Your task to perform on an android device: Open Google Image 0: 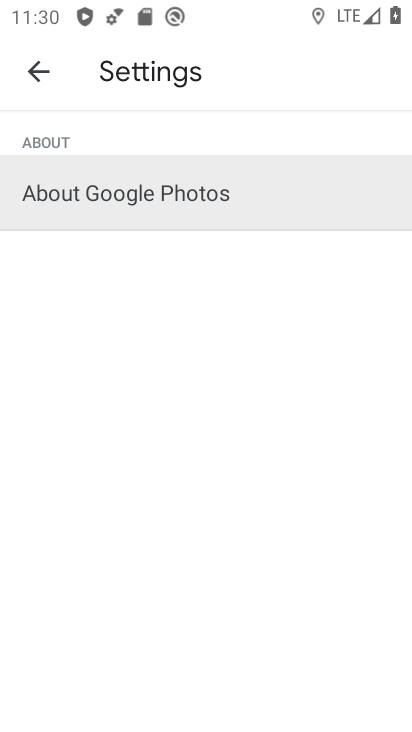
Step 0: press home button
Your task to perform on an android device: Open Google Image 1: 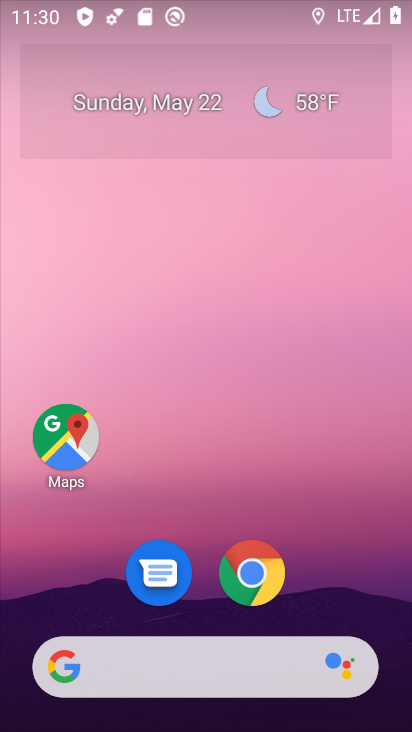
Step 1: click (189, 672)
Your task to perform on an android device: Open Google Image 2: 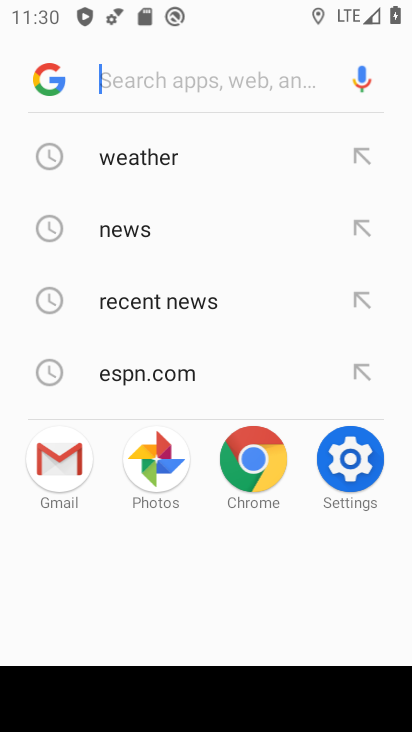
Step 2: click (51, 77)
Your task to perform on an android device: Open Google Image 3: 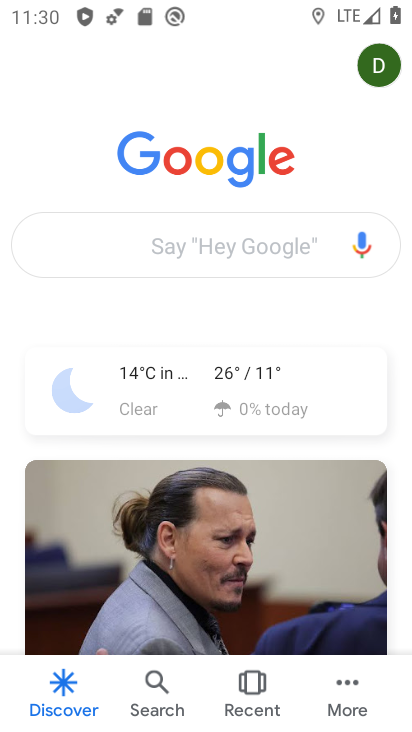
Step 3: task complete